Your task to perform on an android device: change alarm snooze length Image 0: 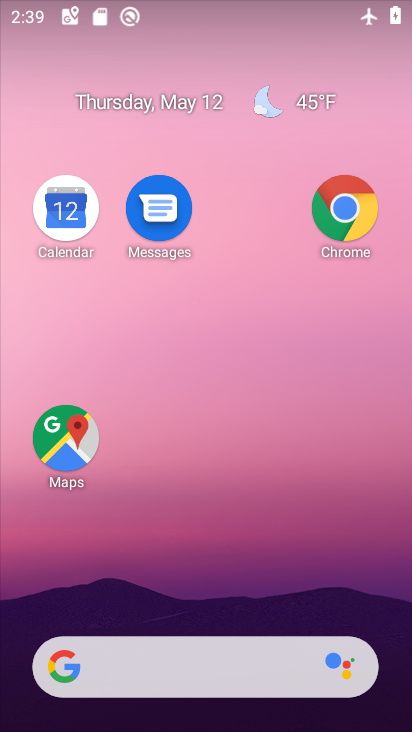
Step 0: click (221, 311)
Your task to perform on an android device: change alarm snooze length Image 1: 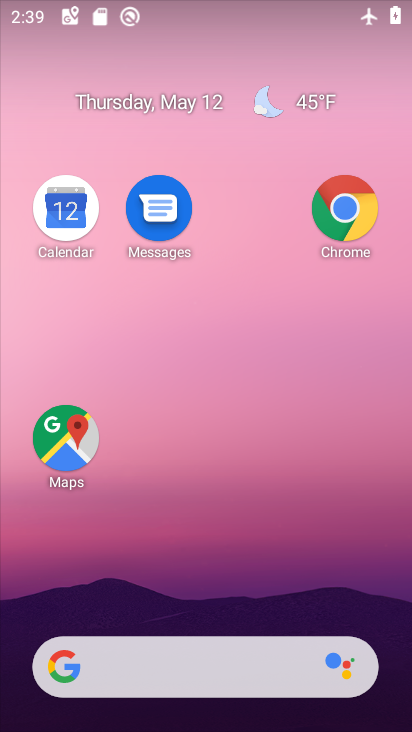
Step 1: drag from (205, 540) to (237, 148)
Your task to perform on an android device: change alarm snooze length Image 2: 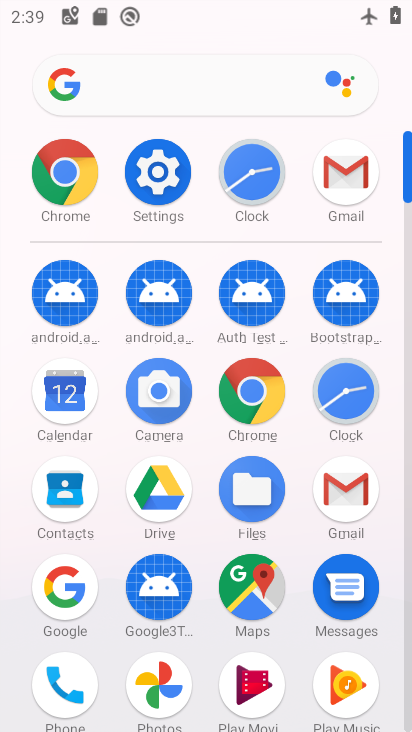
Step 2: click (352, 375)
Your task to perform on an android device: change alarm snooze length Image 3: 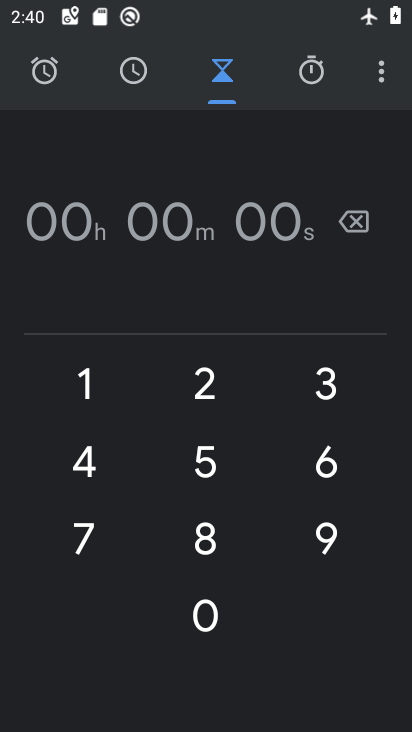
Step 3: click (381, 80)
Your task to perform on an android device: change alarm snooze length Image 4: 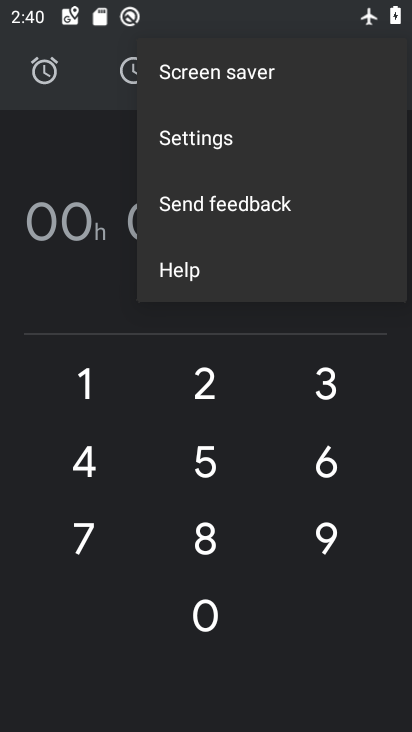
Step 4: click (215, 150)
Your task to perform on an android device: change alarm snooze length Image 5: 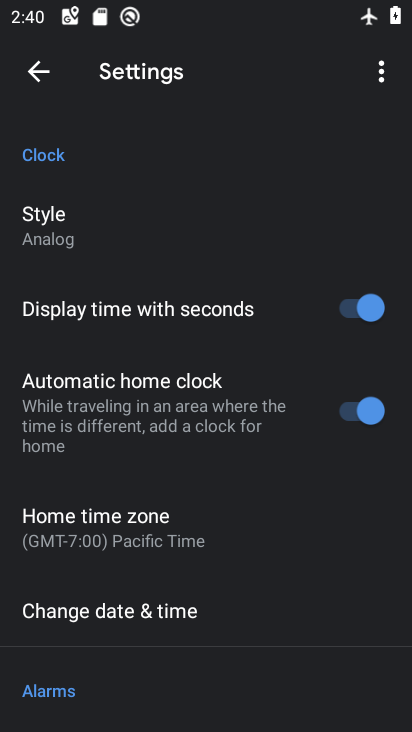
Step 5: drag from (241, 530) to (233, 240)
Your task to perform on an android device: change alarm snooze length Image 6: 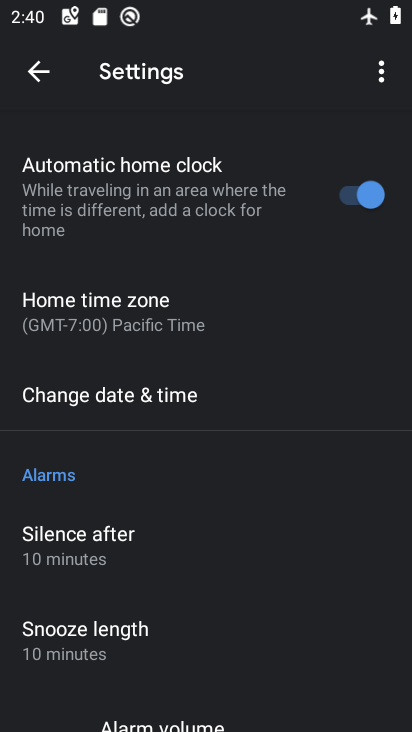
Step 6: click (141, 653)
Your task to perform on an android device: change alarm snooze length Image 7: 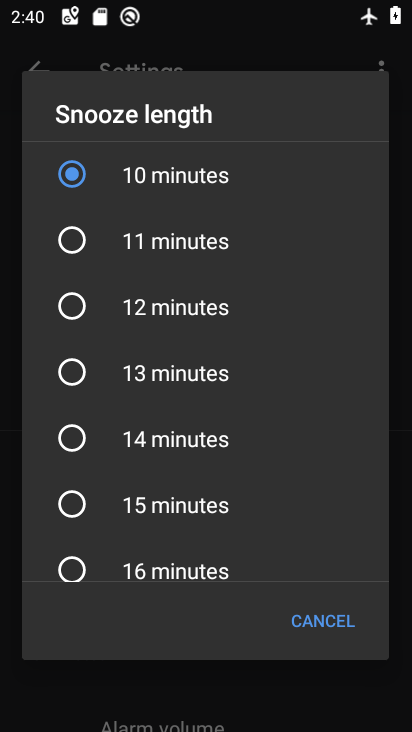
Step 7: click (83, 349)
Your task to perform on an android device: change alarm snooze length Image 8: 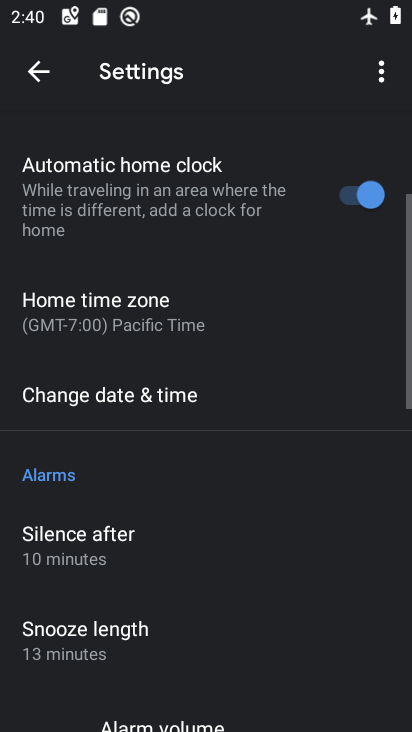
Step 8: task complete